Your task to perform on an android device: set the stopwatch Image 0: 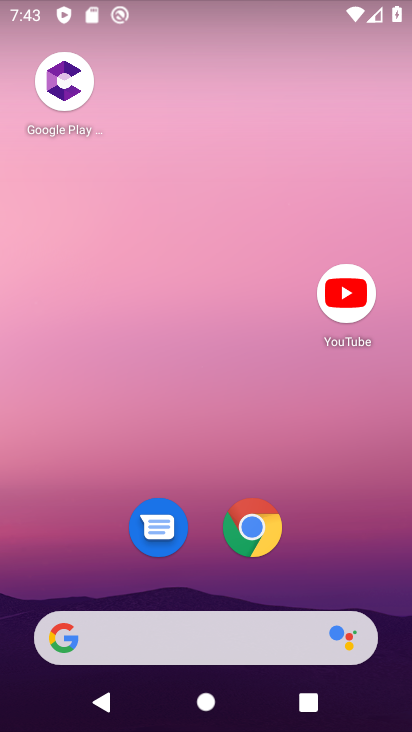
Step 0: drag from (347, 541) to (378, 165)
Your task to perform on an android device: set the stopwatch Image 1: 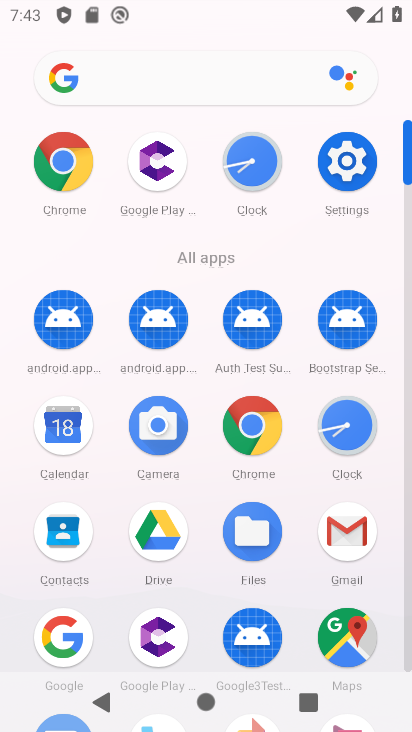
Step 1: click (344, 420)
Your task to perform on an android device: set the stopwatch Image 2: 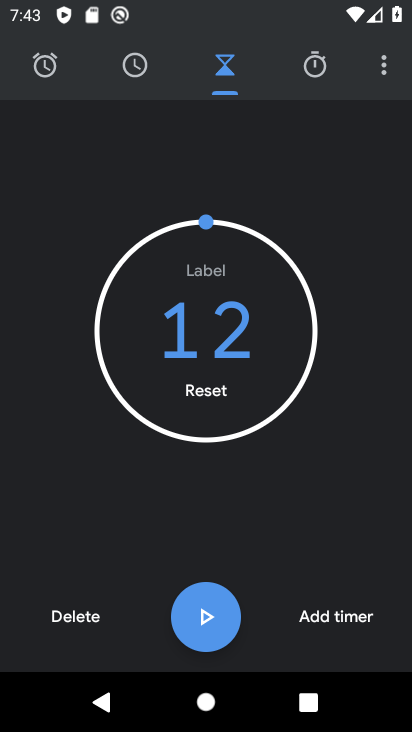
Step 2: click (316, 72)
Your task to perform on an android device: set the stopwatch Image 3: 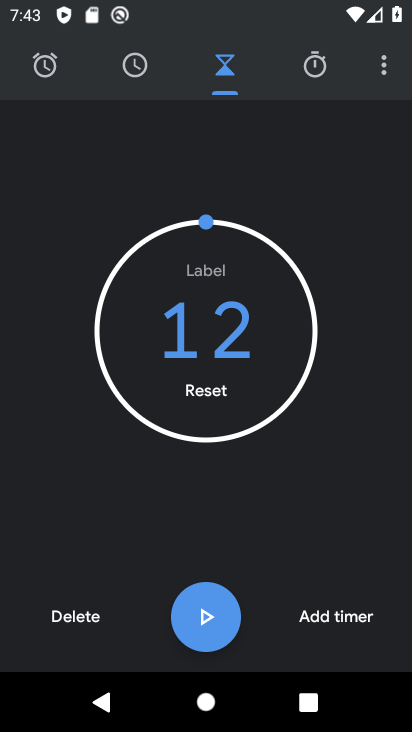
Step 3: click (316, 72)
Your task to perform on an android device: set the stopwatch Image 4: 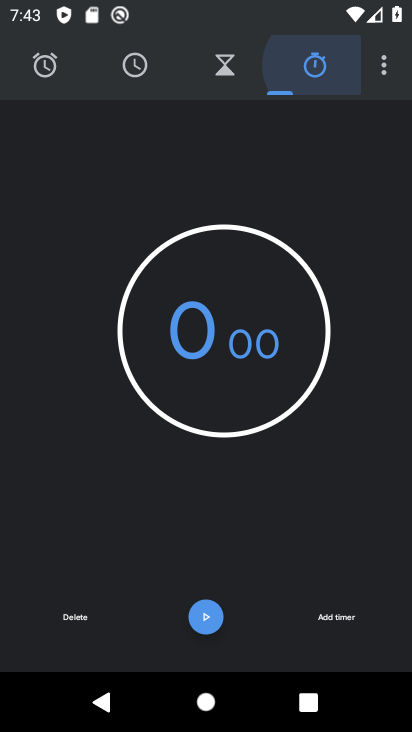
Step 4: click (316, 72)
Your task to perform on an android device: set the stopwatch Image 5: 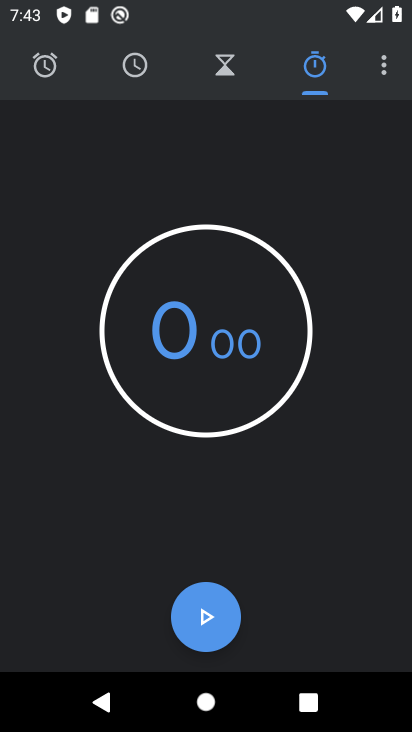
Step 5: click (205, 630)
Your task to perform on an android device: set the stopwatch Image 6: 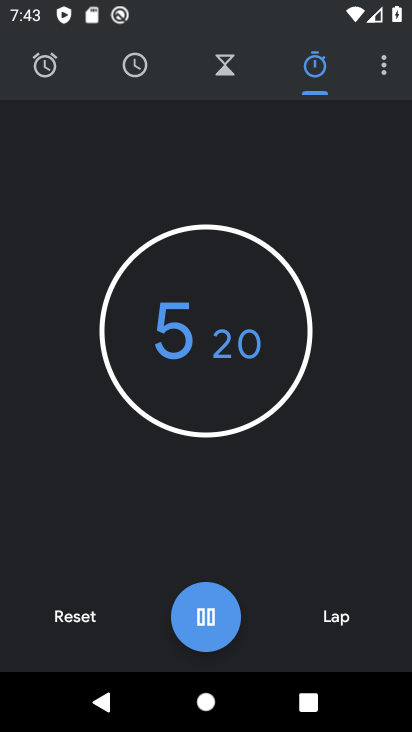
Step 6: click (205, 620)
Your task to perform on an android device: set the stopwatch Image 7: 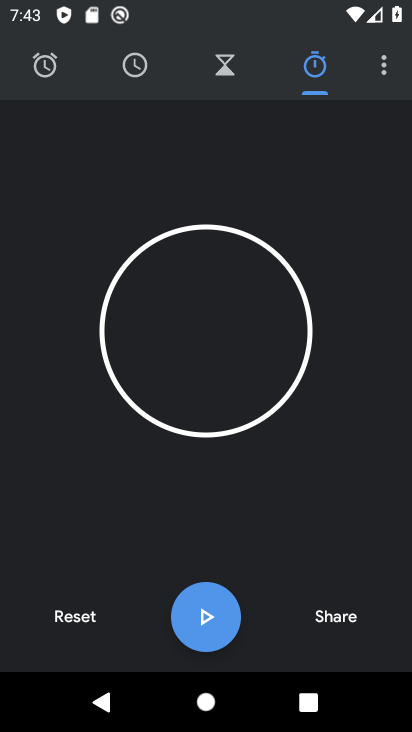
Step 7: task complete